Your task to perform on an android device: star an email in the gmail app Image 0: 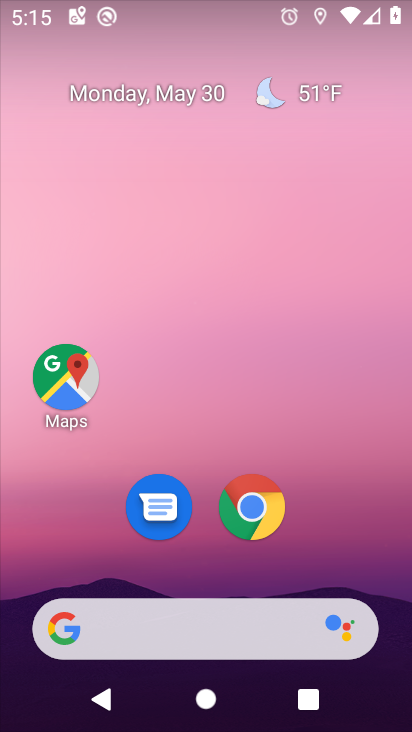
Step 0: press home button
Your task to perform on an android device: star an email in the gmail app Image 1: 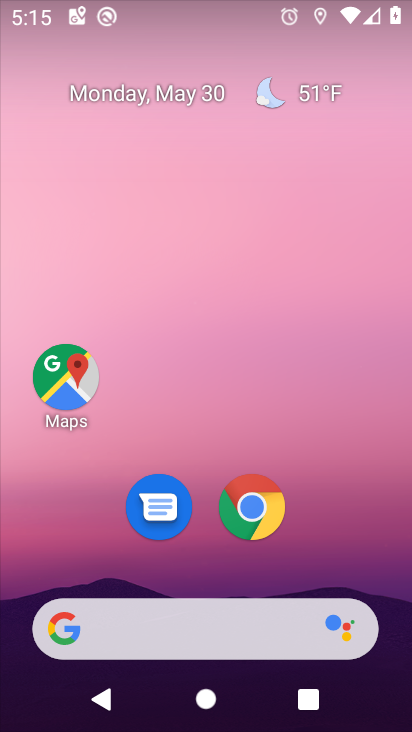
Step 1: drag from (367, 540) to (328, 0)
Your task to perform on an android device: star an email in the gmail app Image 2: 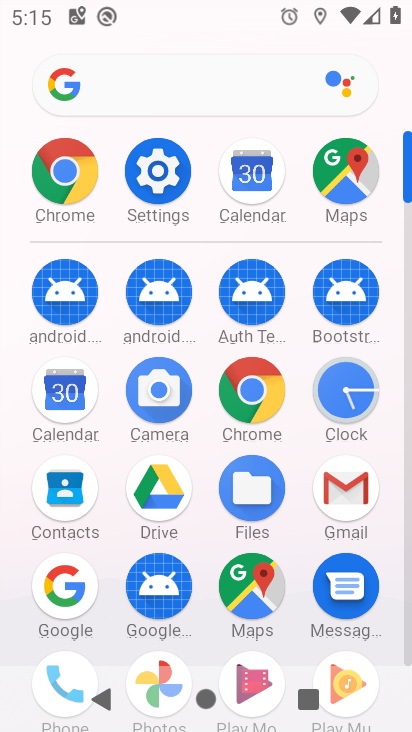
Step 2: click (331, 497)
Your task to perform on an android device: star an email in the gmail app Image 3: 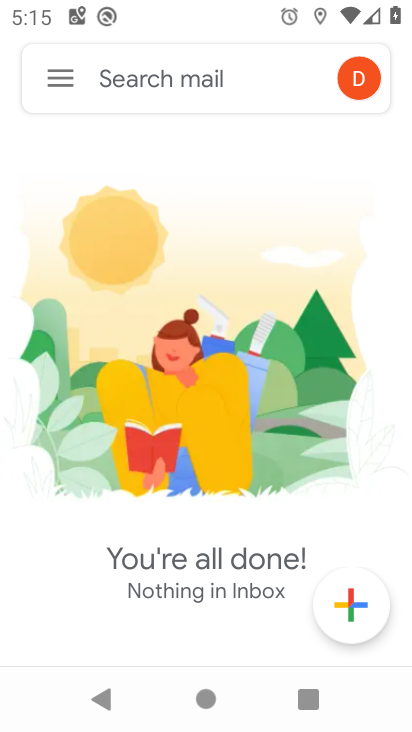
Step 3: task complete